Your task to perform on an android device: turn off translation in the chrome app Image 0: 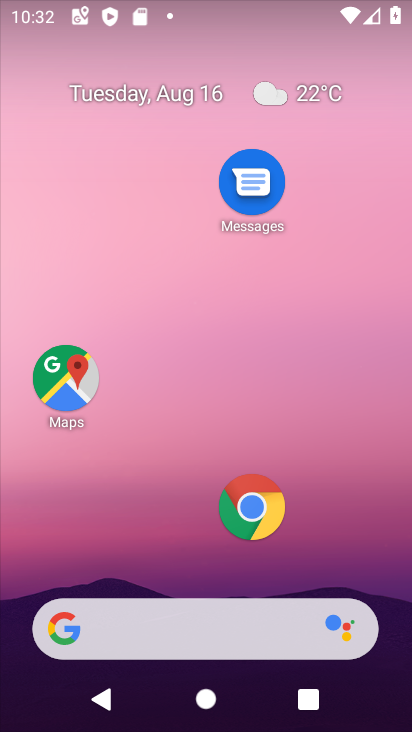
Step 0: click (254, 522)
Your task to perform on an android device: turn off translation in the chrome app Image 1: 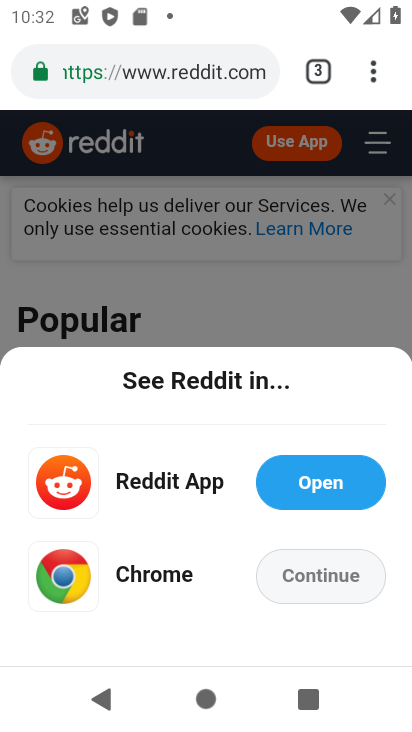
Step 1: drag from (374, 67) to (108, 501)
Your task to perform on an android device: turn off translation in the chrome app Image 2: 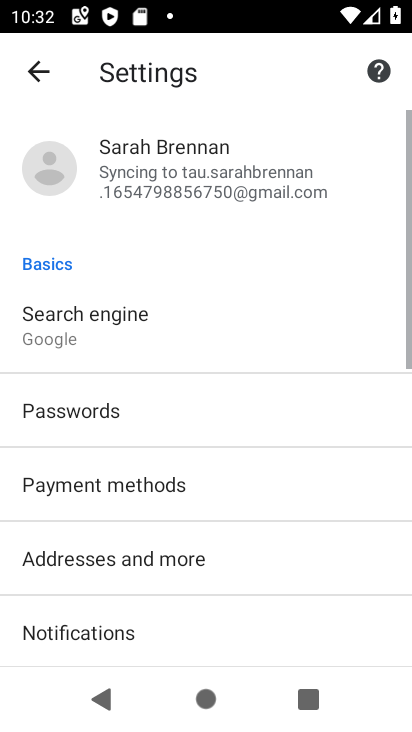
Step 2: drag from (156, 619) to (278, 9)
Your task to perform on an android device: turn off translation in the chrome app Image 3: 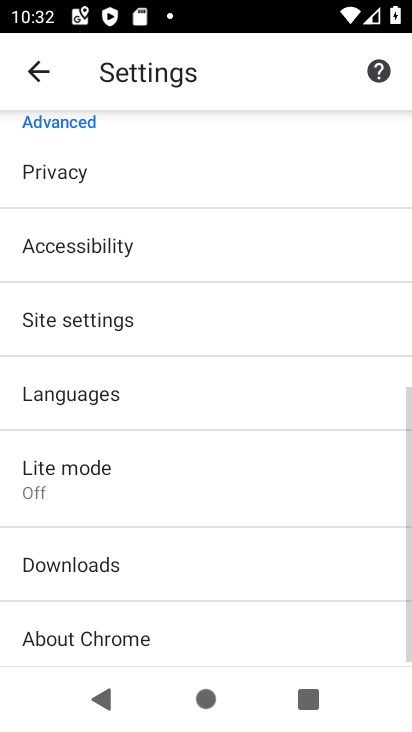
Step 3: click (79, 382)
Your task to perform on an android device: turn off translation in the chrome app Image 4: 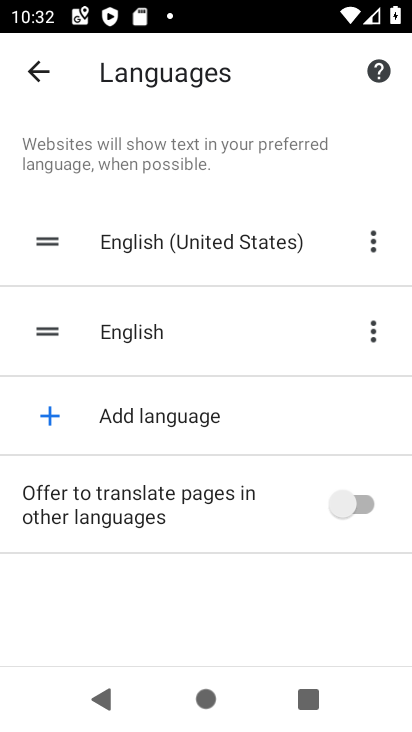
Step 4: task complete